Your task to perform on an android device: toggle notifications settings in the gmail app Image 0: 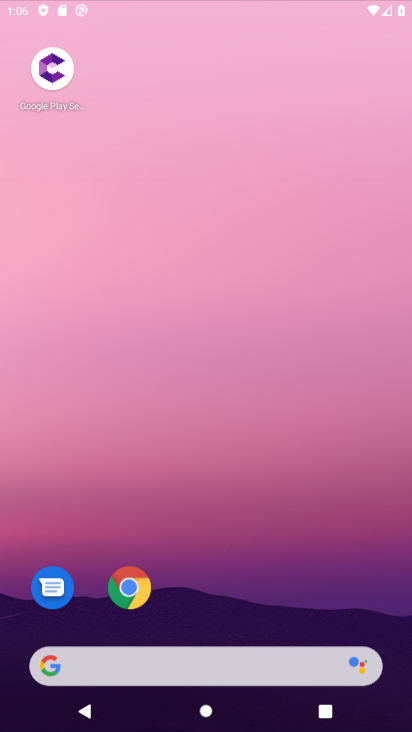
Step 0: drag from (289, 282) to (180, 115)
Your task to perform on an android device: toggle notifications settings in the gmail app Image 1: 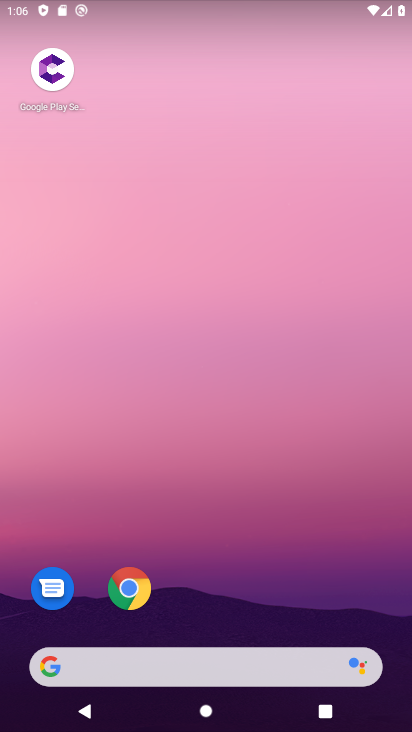
Step 1: drag from (207, 607) to (184, 62)
Your task to perform on an android device: toggle notifications settings in the gmail app Image 2: 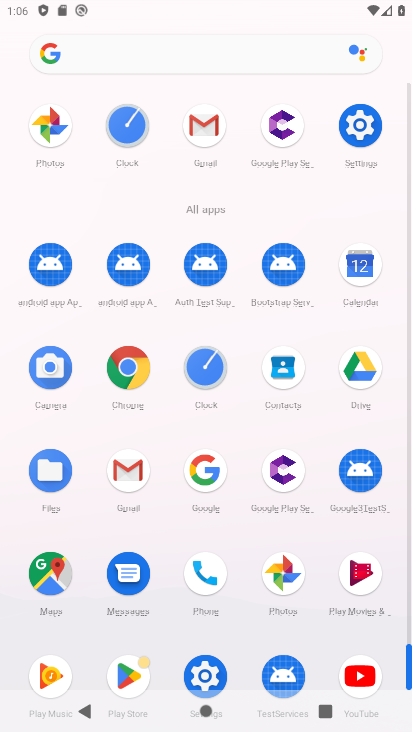
Step 2: click (124, 474)
Your task to perform on an android device: toggle notifications settings in the gmail app Image 3: 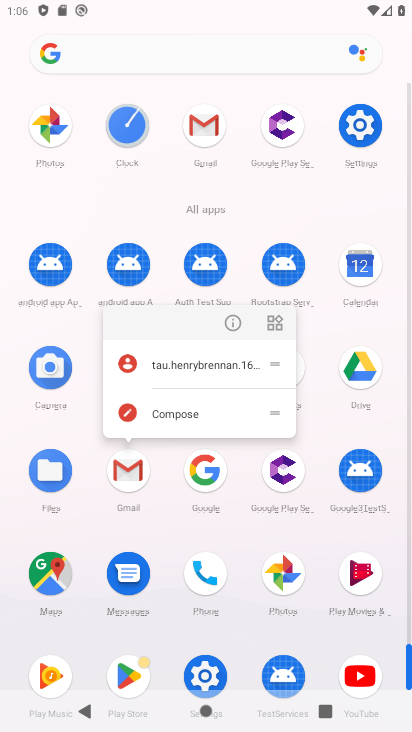
Step 3: click (229, 316)
Your task to perform on an android device: toggle notifications settings in the gmail app Image 4: 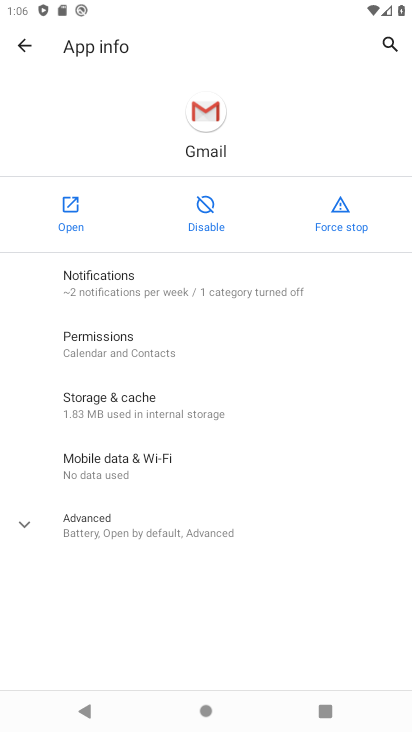
Step 4: click (59, 207)
Your task to perform on an android device: toggle notifications settings in the gmail app Image 5: 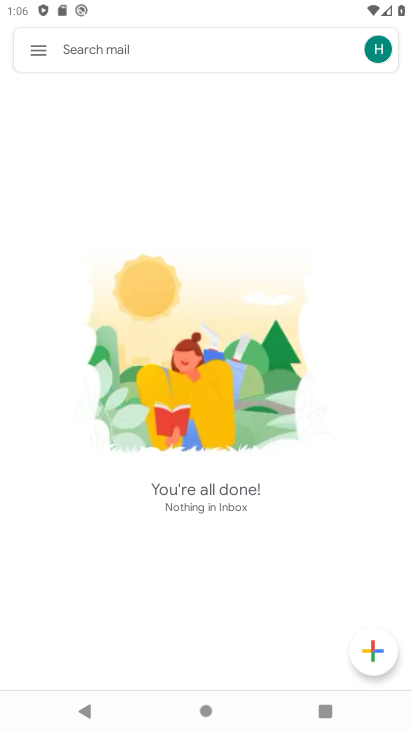
Step 5: drag from (230, 528) to (214, 294)
Your task to perform on an android device: toggle notifications settings in the gmail app Image 6: 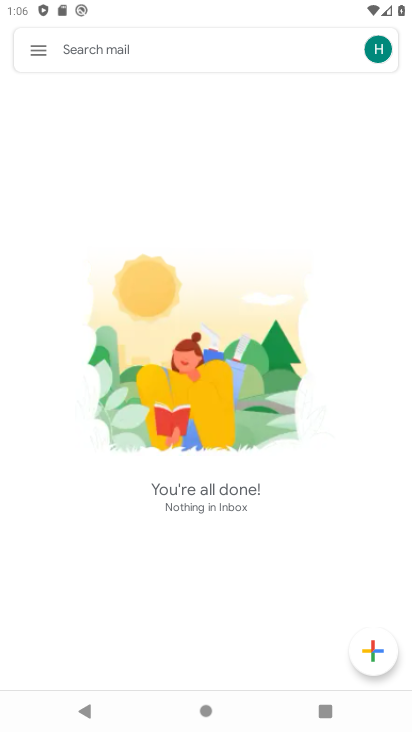
Step 6: click (31, 52)
Your task to perform on an android device: toggle notifications settings in the gmail app Image 7: 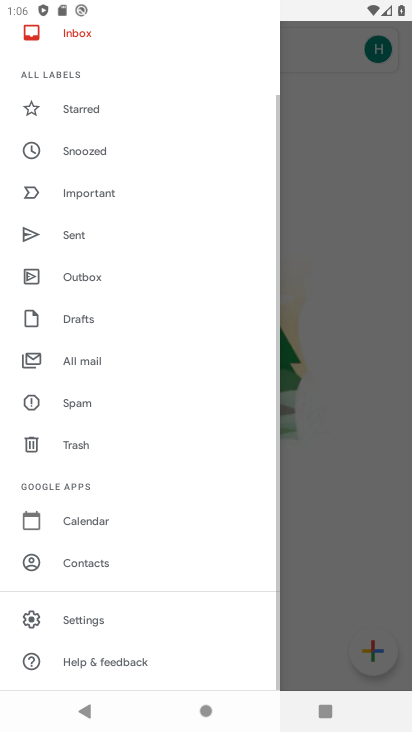
Step 7: click (145, 381)
Your task to perform on an android device: toggle notifications settings in the gmail app Image 8: 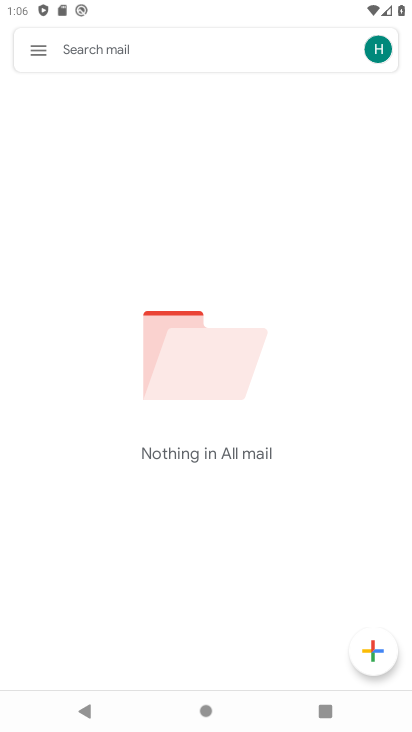
Step 8: click (27, 60)
Your task to perform on an android device: toggle notifications settings in the gmail app Image 9: 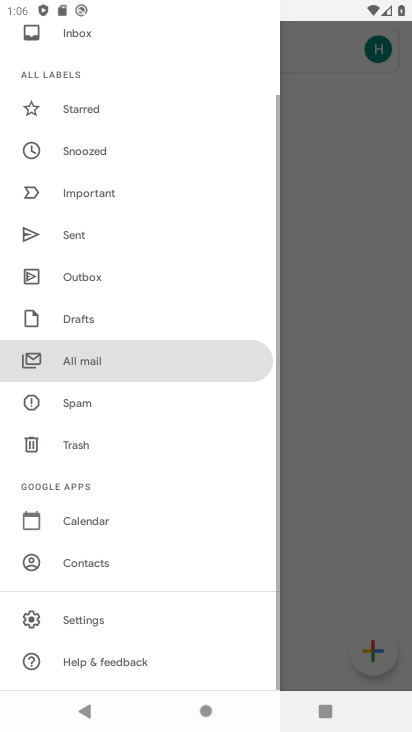
Step 9: click (92, 615)
Your task to perform on an android device: toggle notifications settings in the gmail app Image 10: 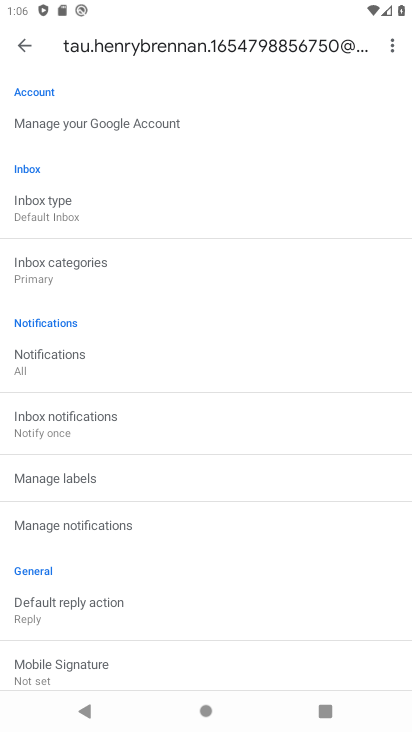
Step 10: click (90, 509)
Your task to perform on an android device: toggle notifications settings in the gmail app Image 11: 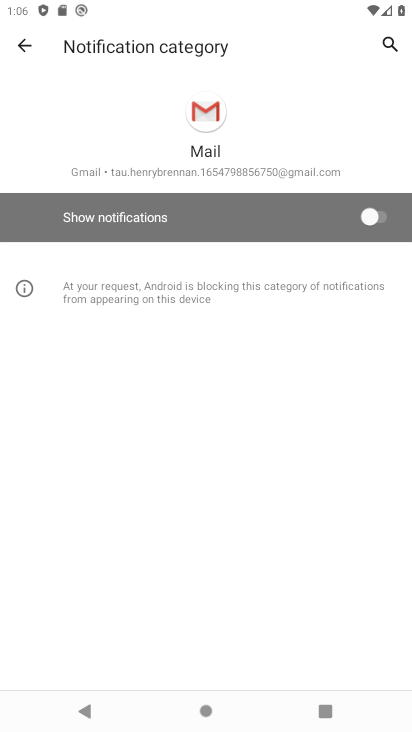
Step 11: click (339, 203)
Your task to perform on an android device: toggle notifications settings in the gmail app Image 12: 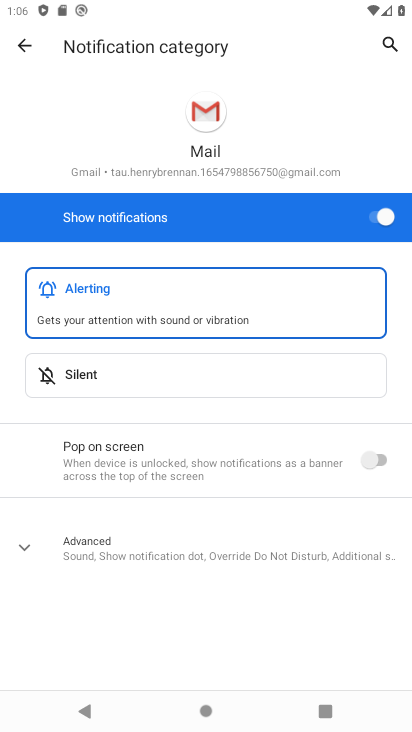
Step 12: task complete